Your task to perform on an android device: turn off javascript in the chrome app Image 0: 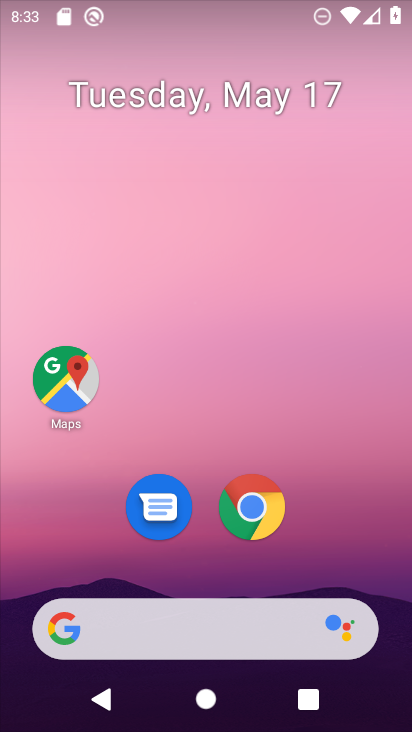
Step 0: click (256, 517)
Your task to perform on an android device: turn off javascript in the chrome app Image 1: 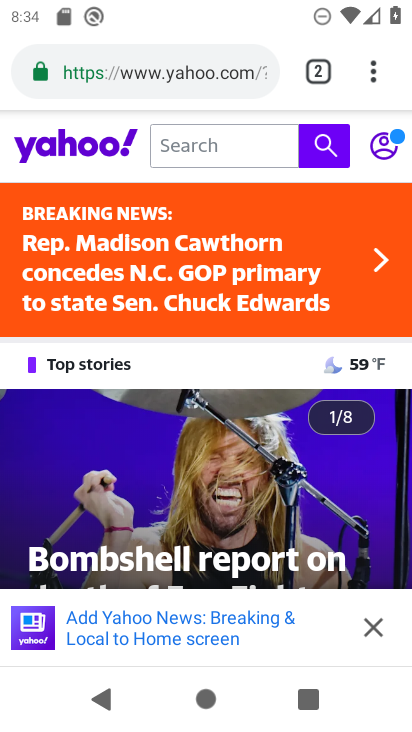
Step 1: click (371, 75)
Your task to perform on an android device: turn off javascript in the chrome app Image 2: 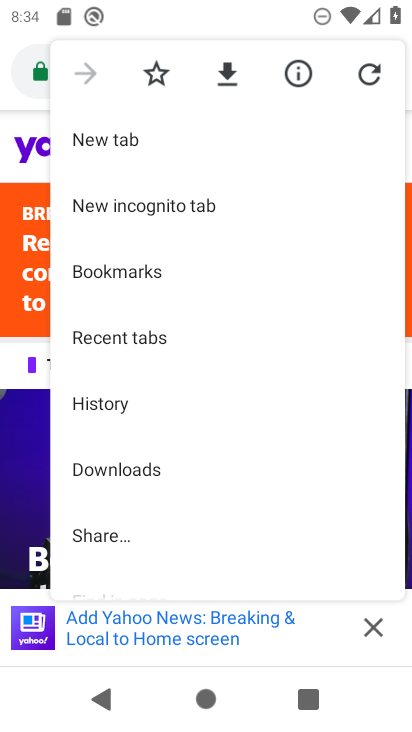
Step 2: drag from (188, 498) to (201, 127)
Your task to perform on an android device: turn off javascript in the chrome app Image 3: 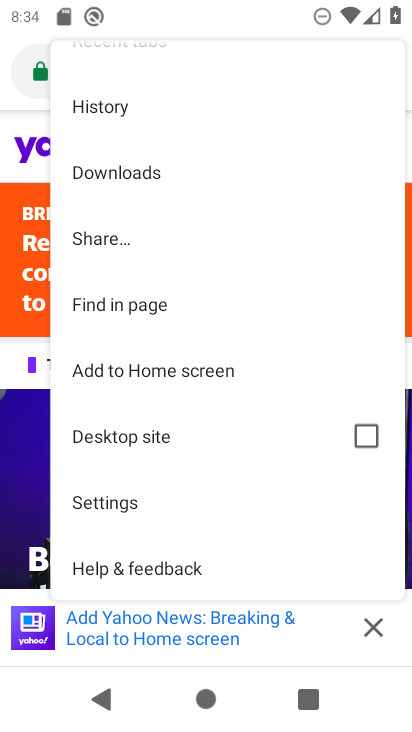
Step 3: click (111, 508)
Your task to perform on an android device: turn off javascript in the chrome app Image 4: 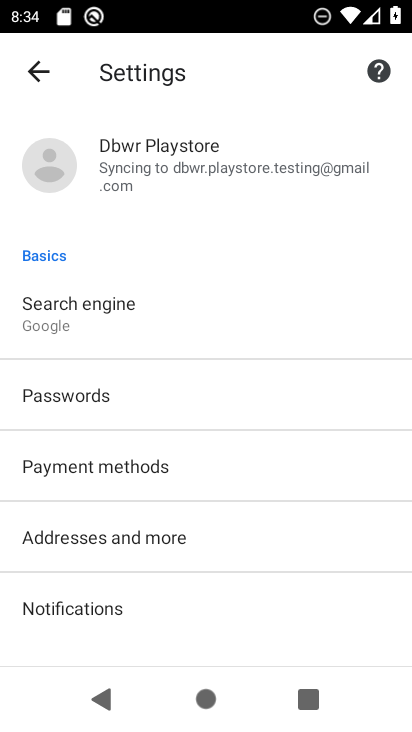
Step 4: drag from (180, 548) to (199, 84)
Your task to perform on an android device: turn off javascript in the chrome app Image 5: 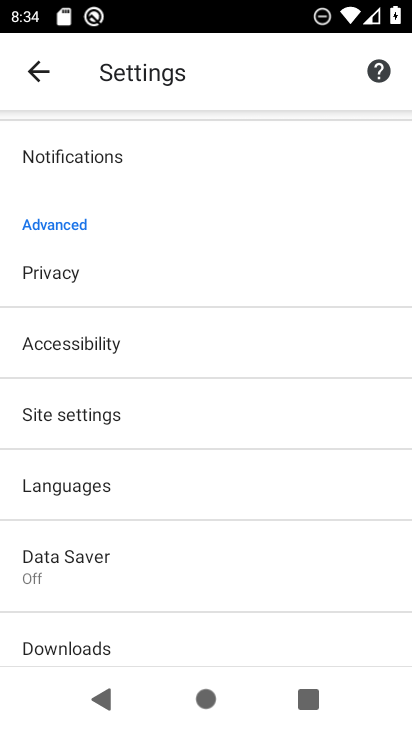
Step 5: click (103, 411)
Your task to perform on an android device: turn off javascript in the chrome app Image 6: 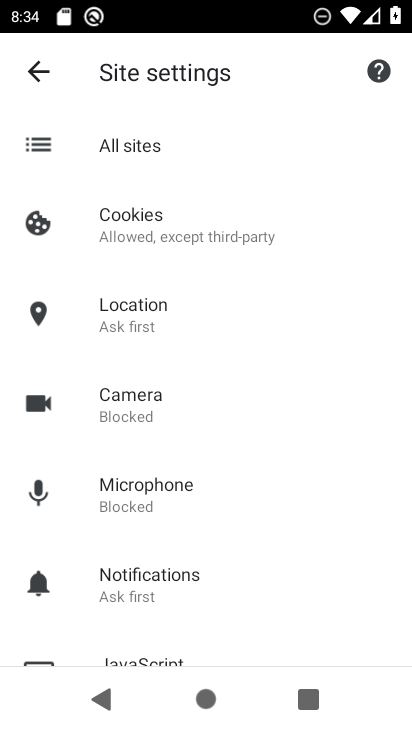
Step 6: drag from (213, 533) to (210, 270)
Your task to perform on an android device: turn off javascript in the chrome app Image 7: 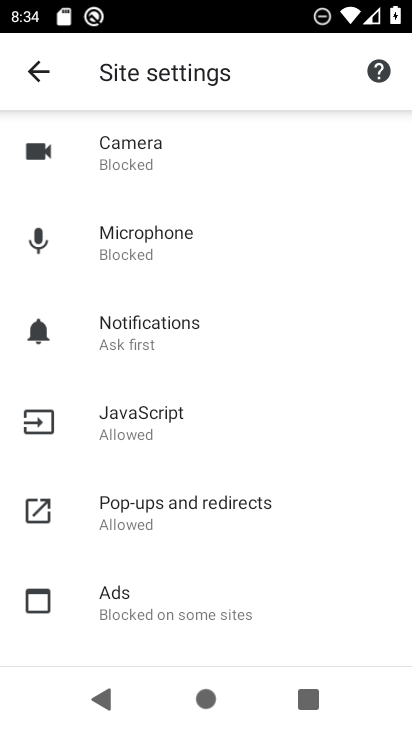
Step 7: click (135, 409)
Your task to perform on an android device: turn off javascript in the chrome app Image 8: 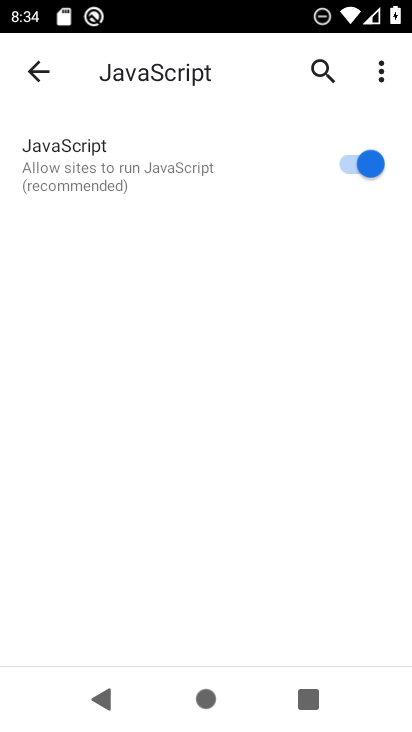
Step 8: click (365, 162)
Your task to perform on an android device: turn off javascript in the chrome app Image 9: 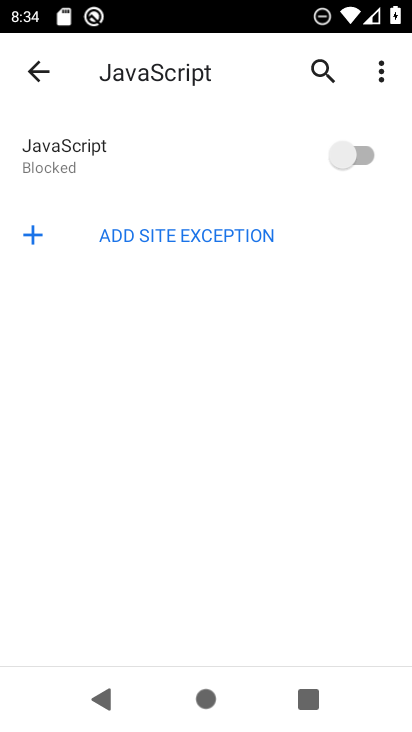
Step 9: task complete